Your task to perform on an android device: Go to Reddit.com Image 0: 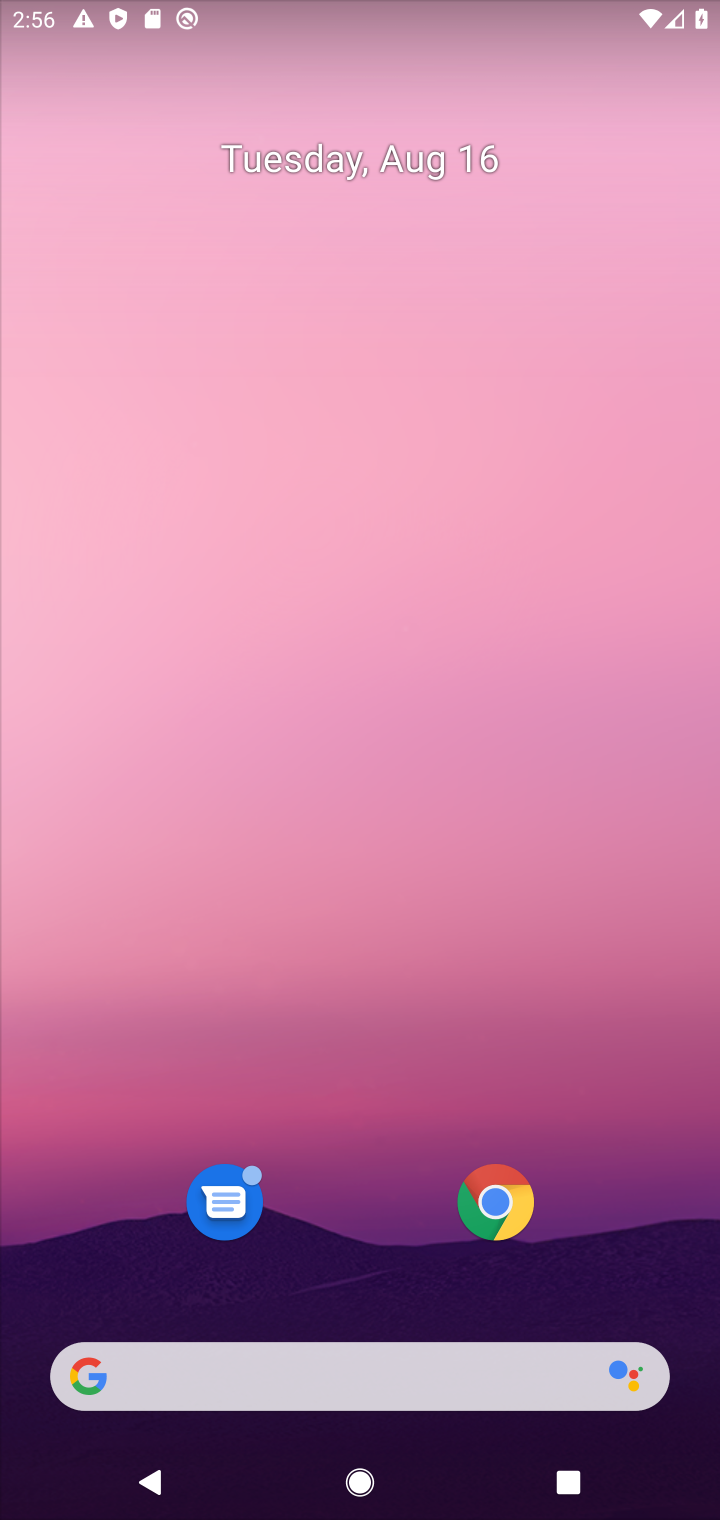
Step 0: drag from (353, 314) to (356, 213)
Your task to perform on an android device: Go to Reddit.com Image 1: 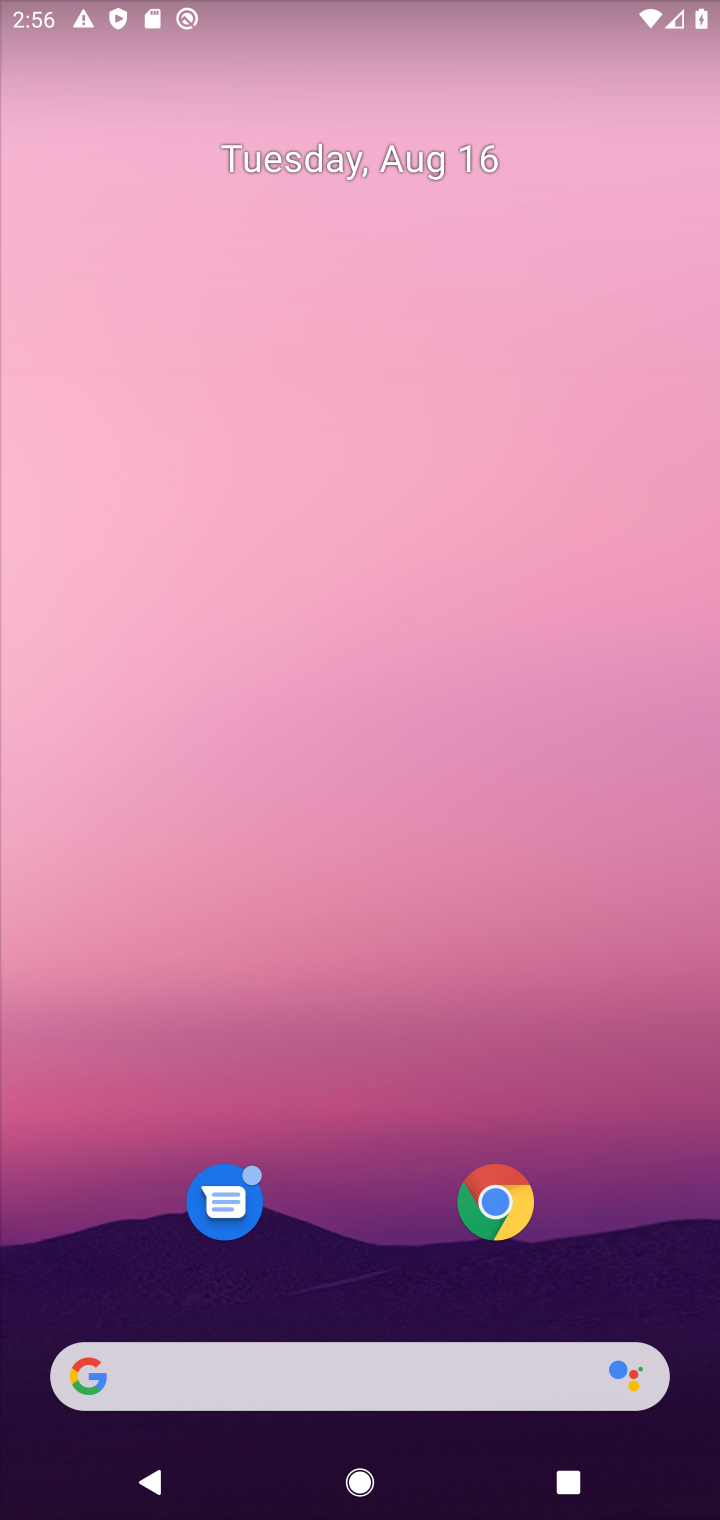
Step 1: drag from (332, 1263) to (311, 261)
Your task to perform on an android device: Go to Reddit.com Image 2: 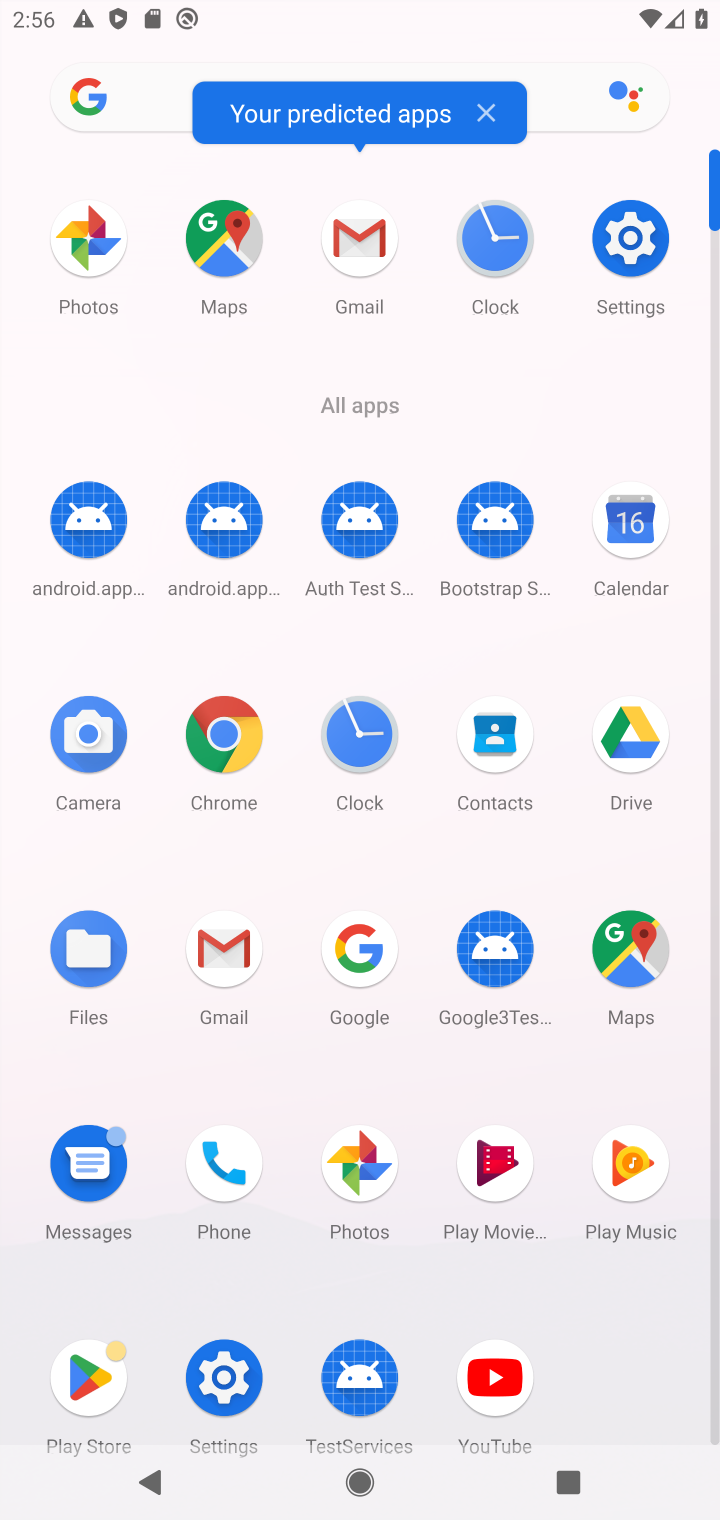
Step 2: click (242, 755)
Your task to perform on an android device: Go to Reddit.com Image 3: 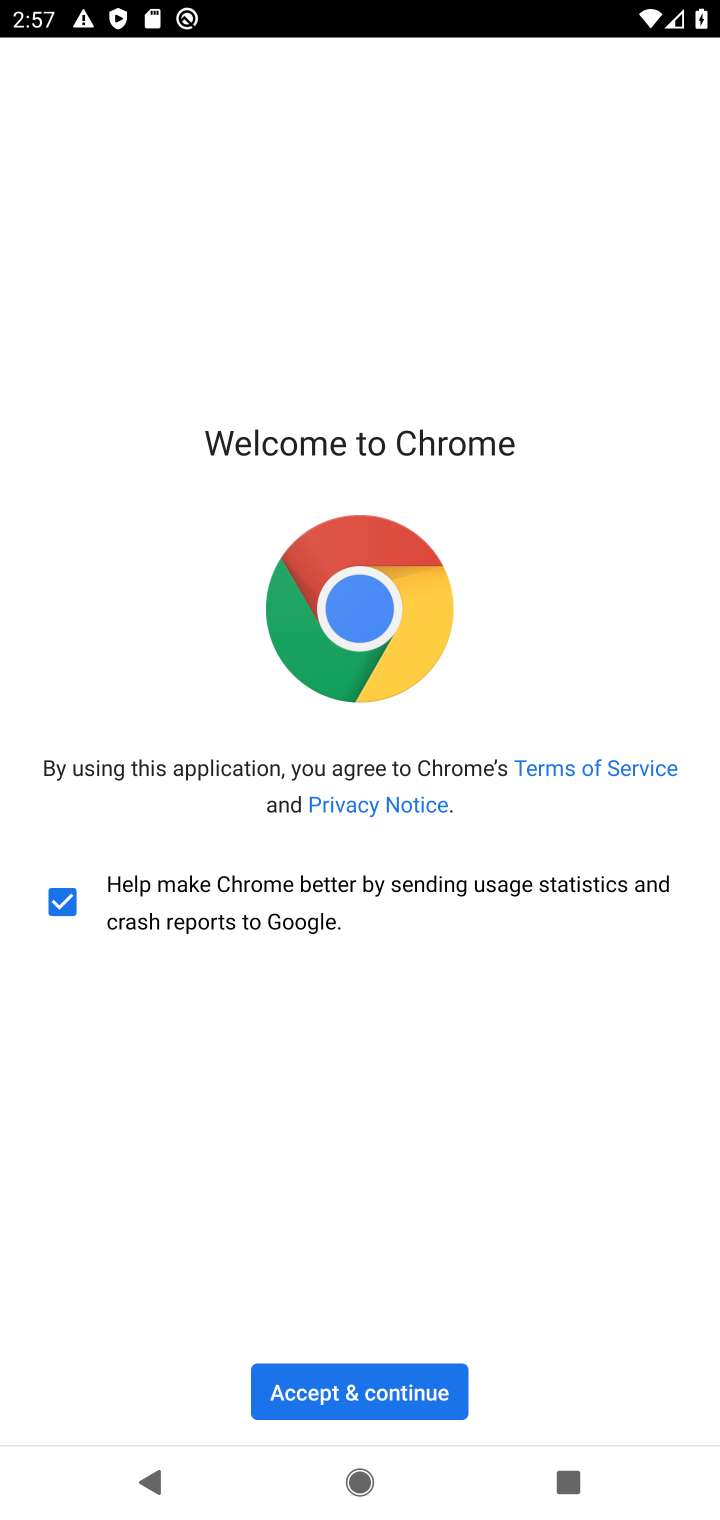
Step 3: click (388, 1378)
Your task to perform on an android device: Go to Reddit.com Image 4: 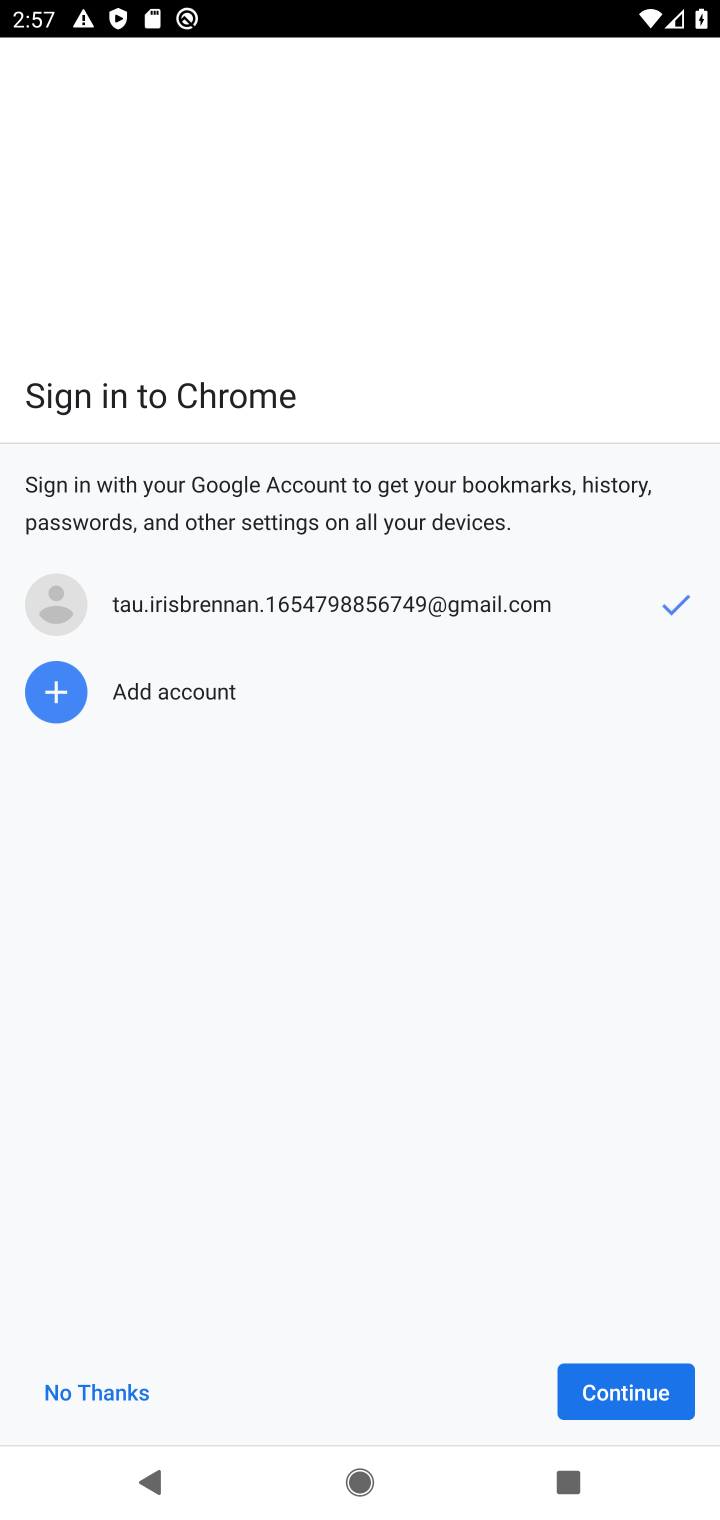
Step 4: click (607, 1389)
Your task to perform on an android device: Go to Reddit.com Image 5: 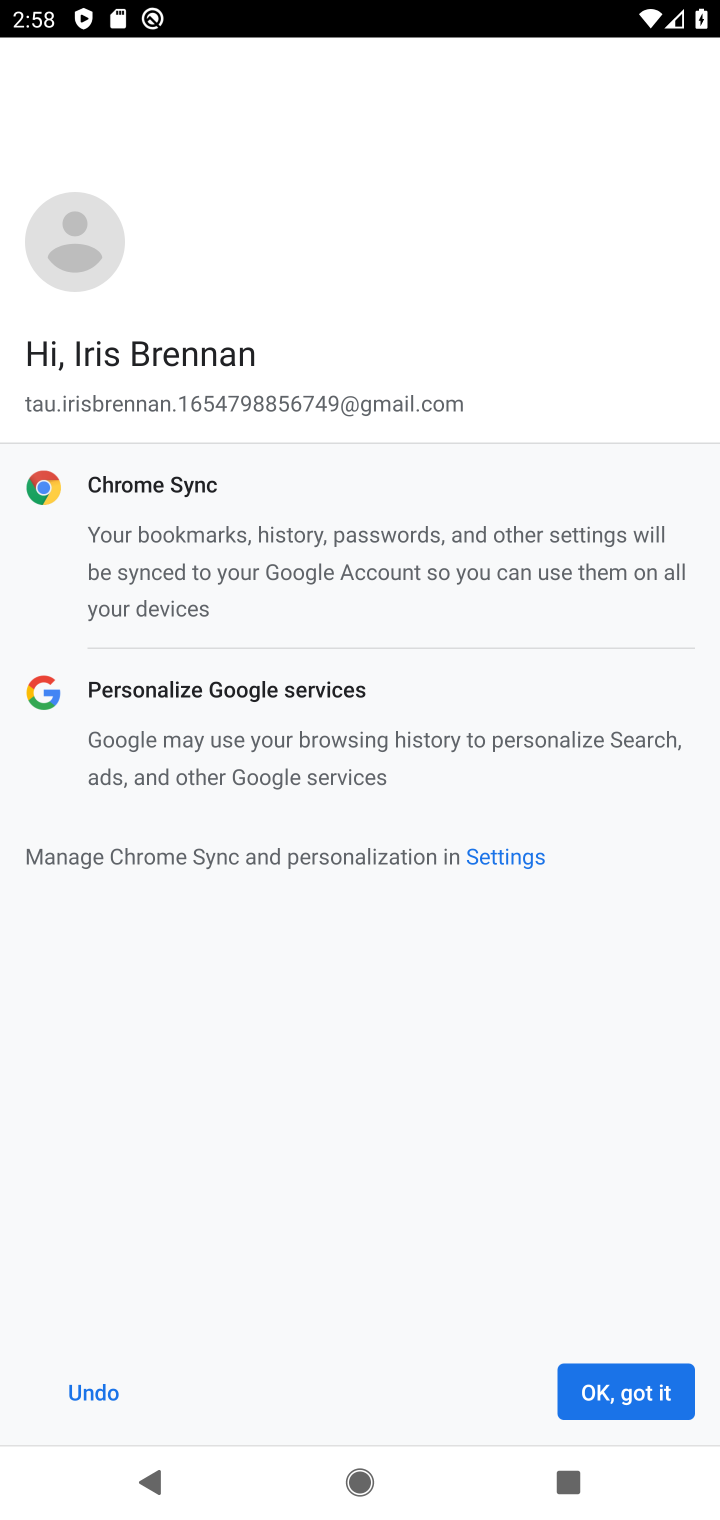
Step 5: click (621, 1413)
Your task to perform on an android device: Go to Reddit.com Image 6: 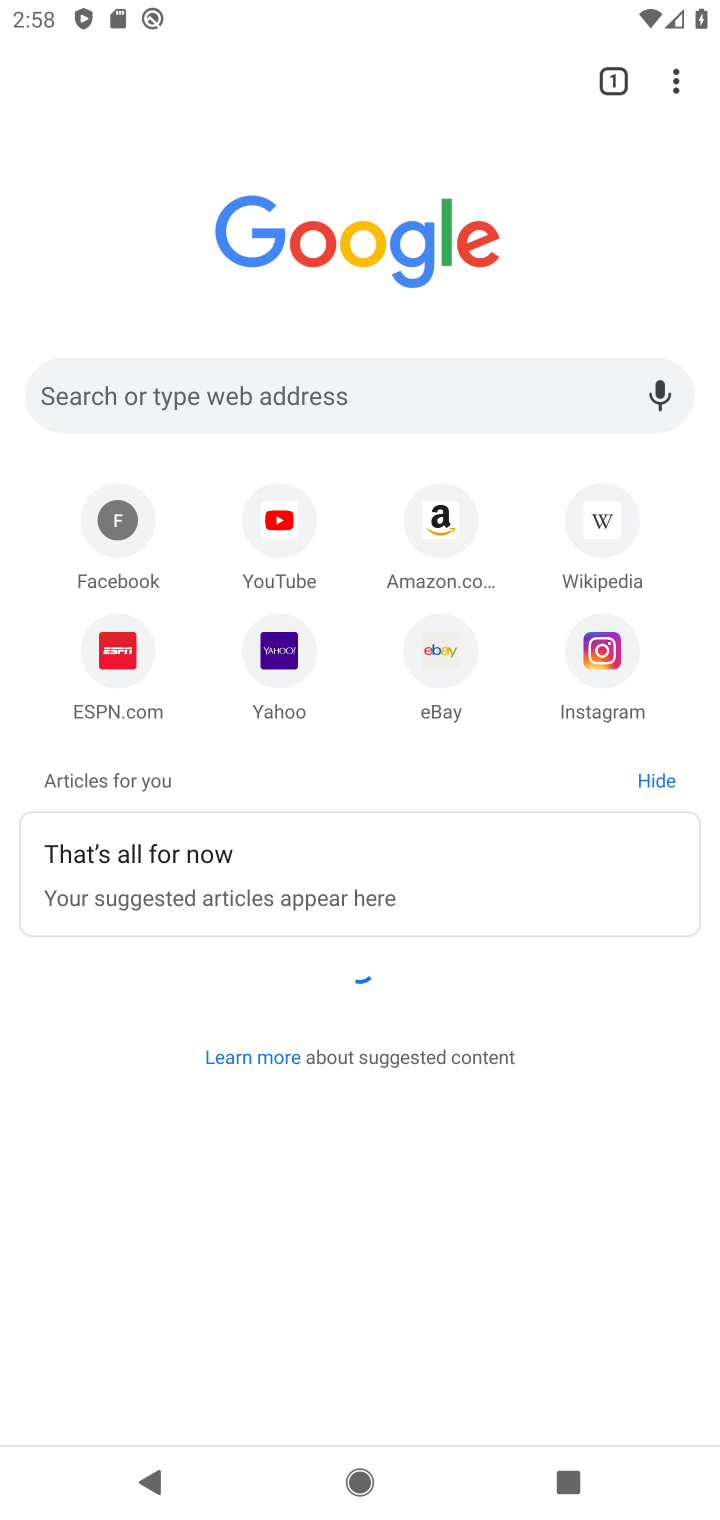
Step 6: click (280, 390)
Your task to perform on an android device: Go to Reddit.com Image 7: 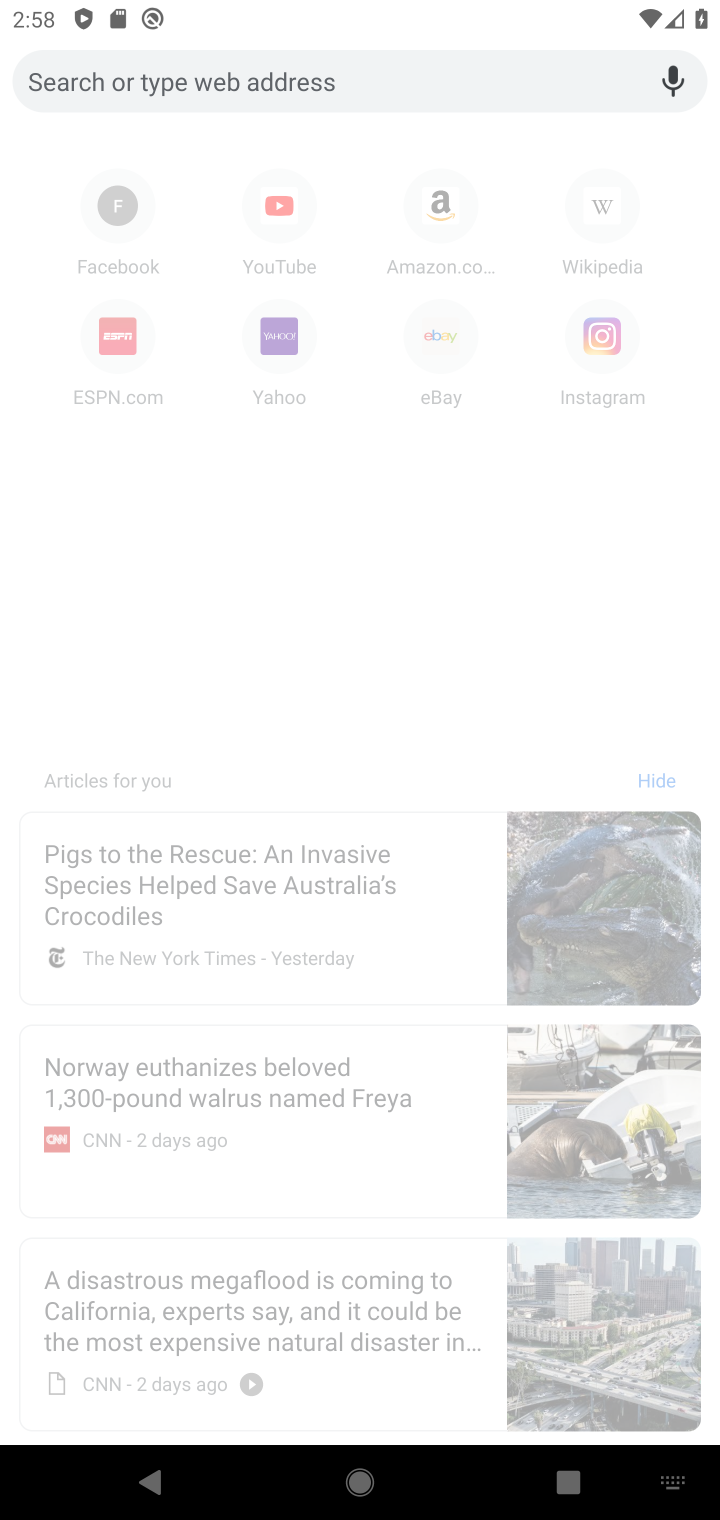
Step 7: type "Reddit.com"
Your task to perform on an android device: Go to Reddit.com Image 8: 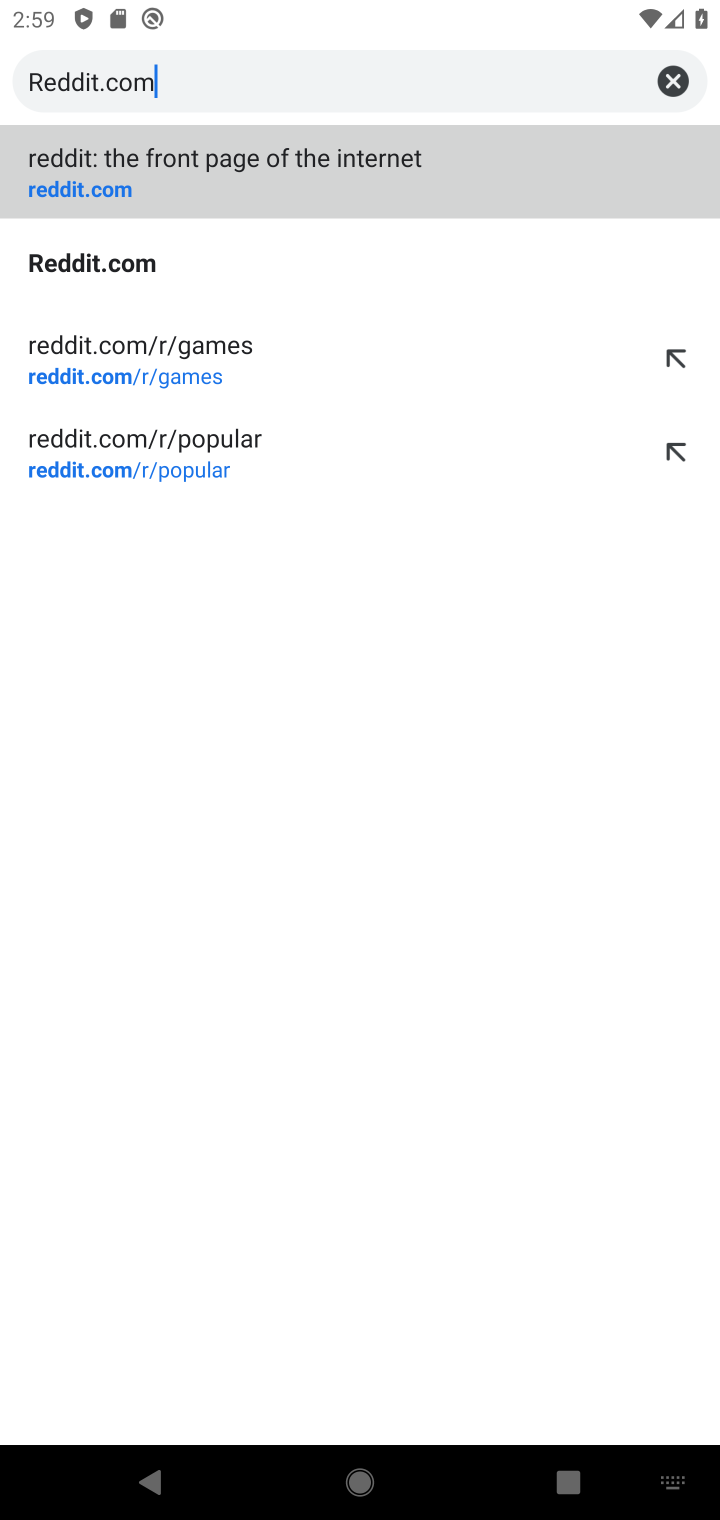
Step 8: type ""
Your task to perform on an android device: Go to Reddit.com Image 9: 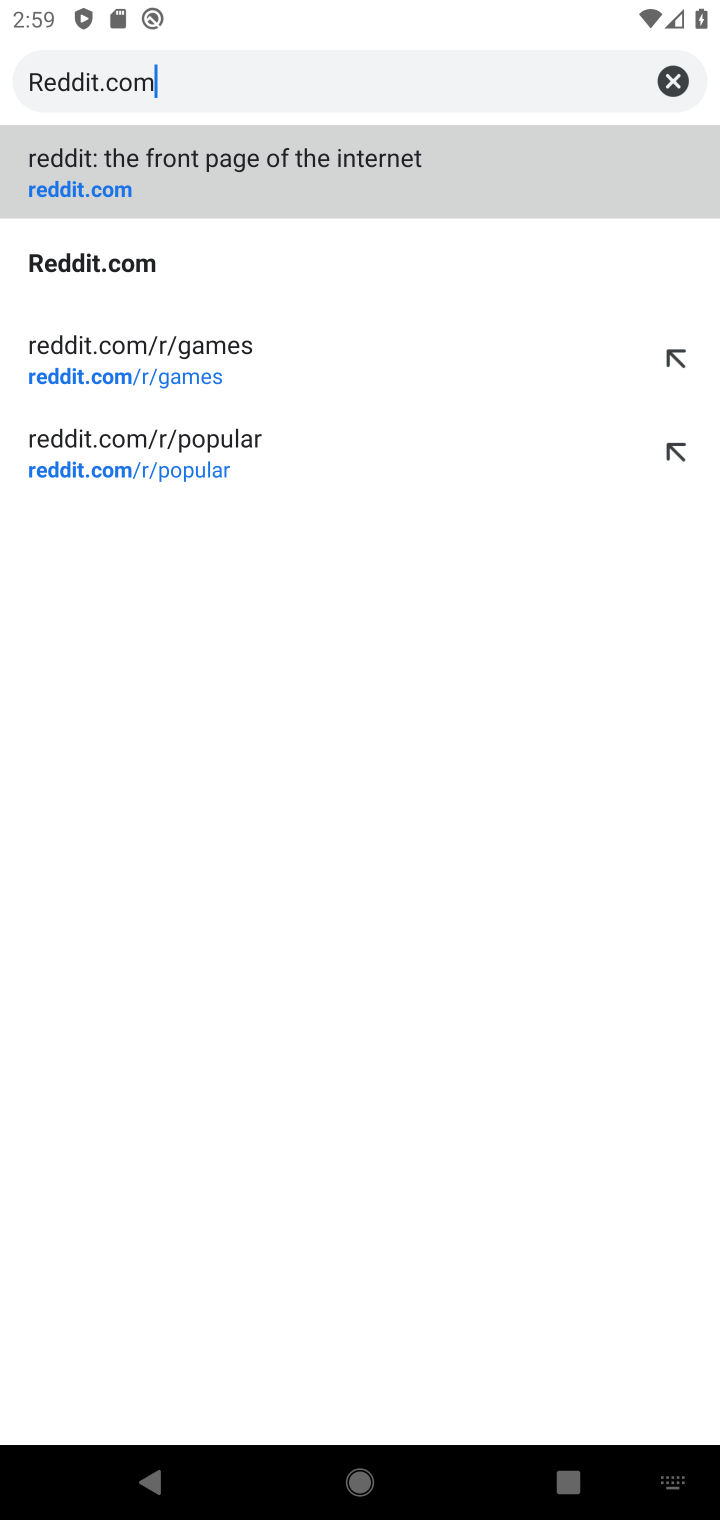
Step 9: click (206, 197)
Your task to perform on an android device: Go to Reddit.com Image 10: 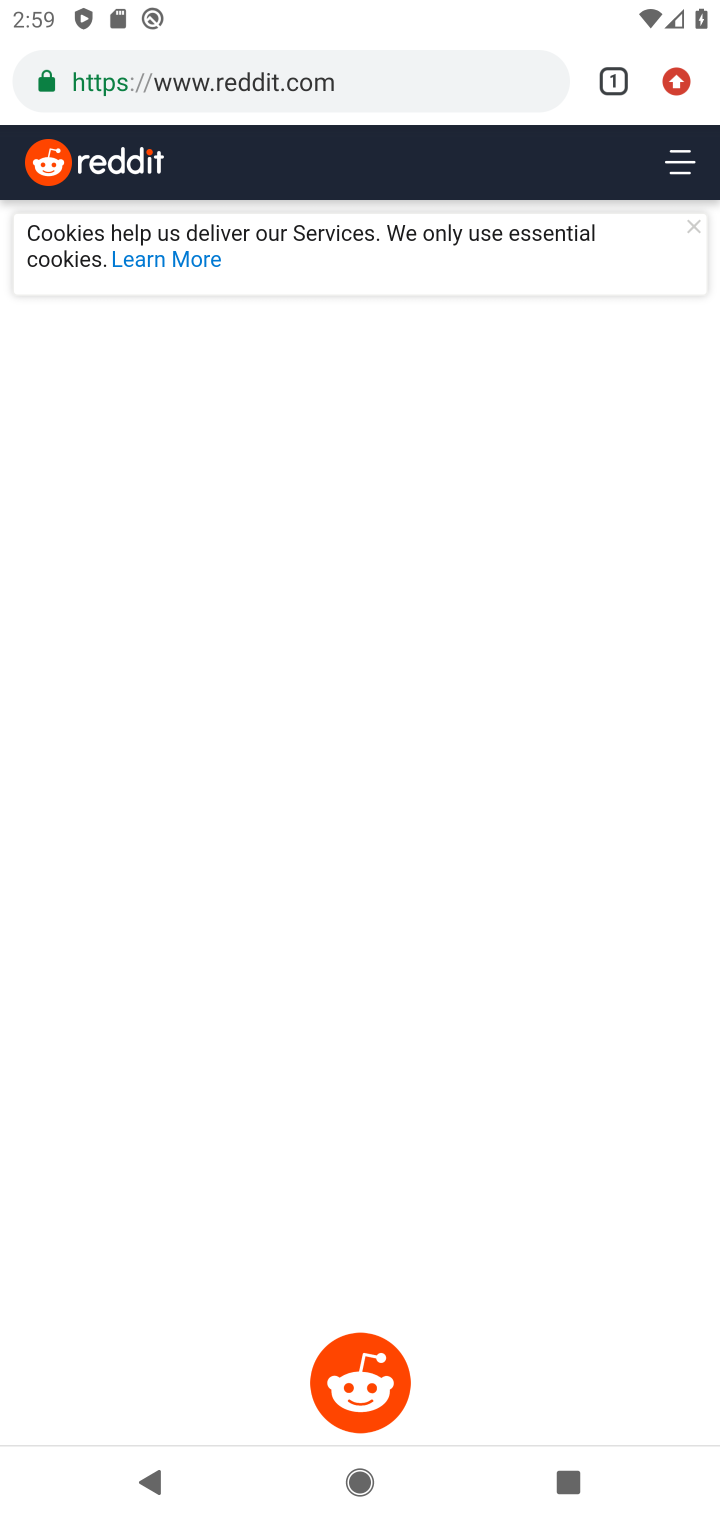
Step 10: task complete